Your task to perform on an android device: toggle translation in the chrome app Image 0: 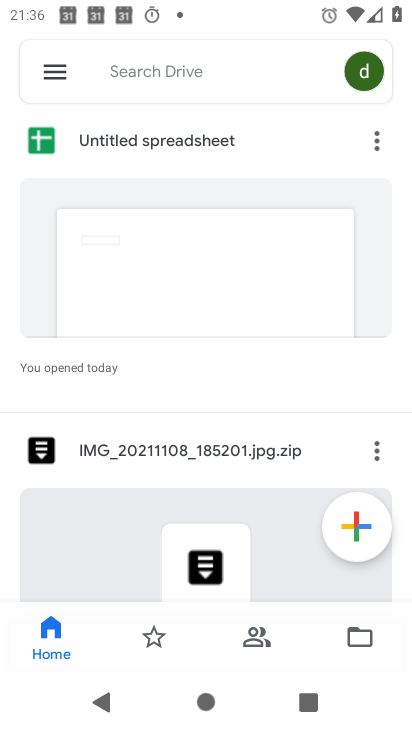
Step 0: press home button
Your task to perform on an android device: toggle translation in the chrome app Image 1: 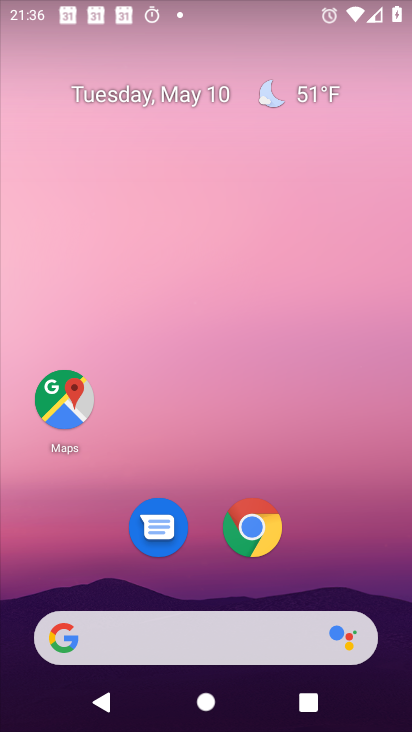
Step 1: click (255, 542)
Your task to perform on an android device: toggle translation in the chrome app Image 2: 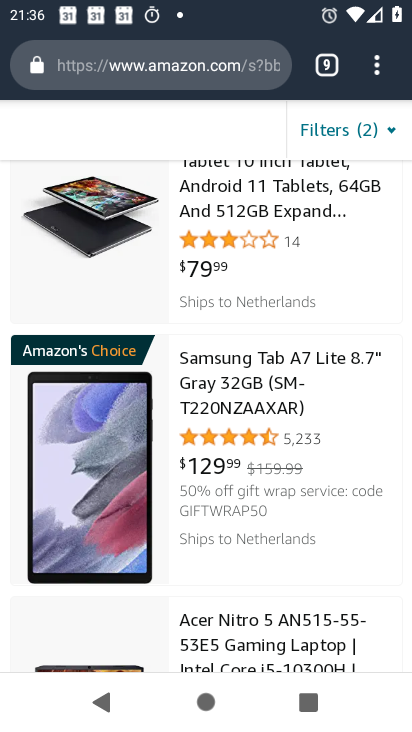
Step 2: click (365, 67)
Your task to perform on an android device: toggle translation in the chrome app Image 3: 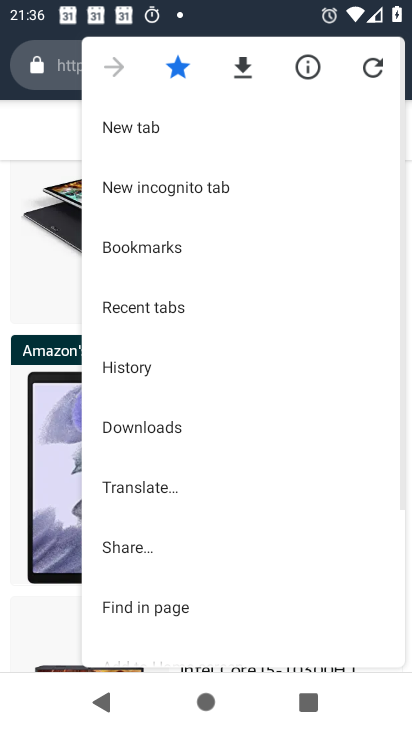
Step 3: drag from (220, 594) to (221, 122)
Your task to perform on an android device: toggle translation in the chrome app Image 4: 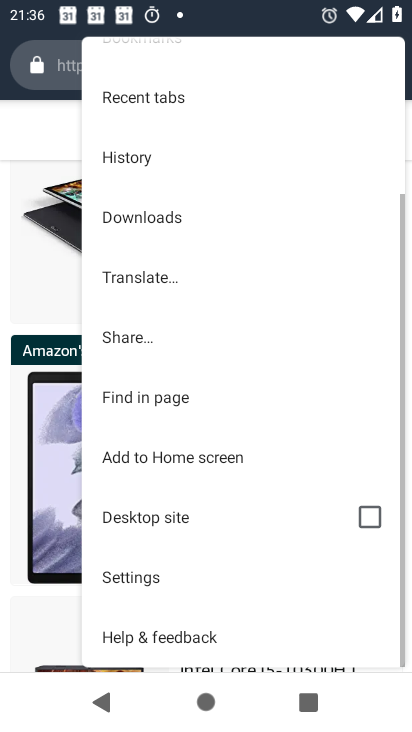
Step 4: click (138, 575)
Your task to perform on an android device: toggle translation in the chrome app Image 5: 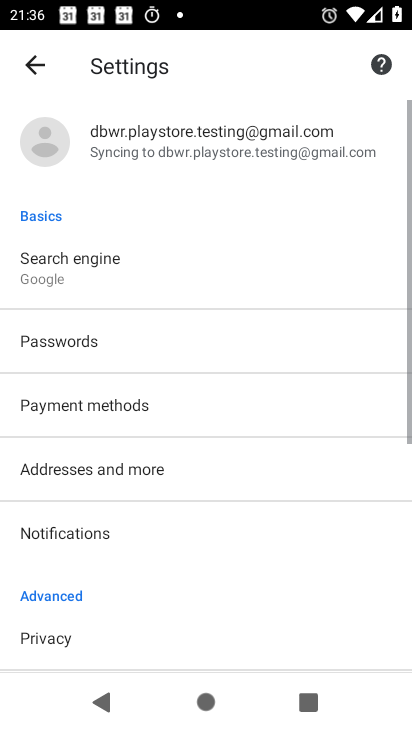
Step 5: drag from (156, 580) to (98, 74)
Your task to perform on an android device: toggle translation in the chrome app Image 6: 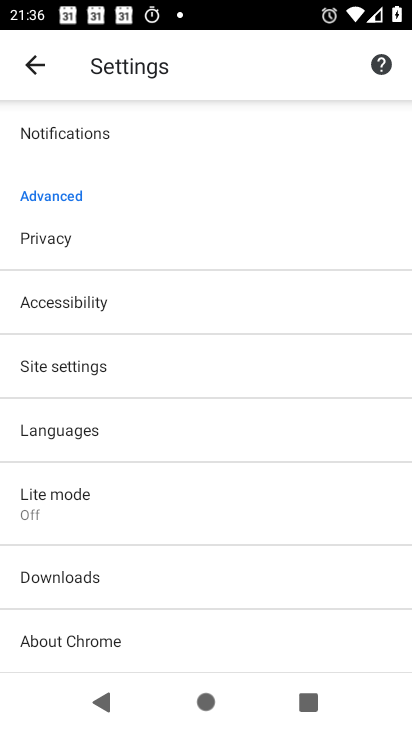
Step 6: click (80, 425)
Your task to perform on an android device: toggle translation in the chrome app Image 7: 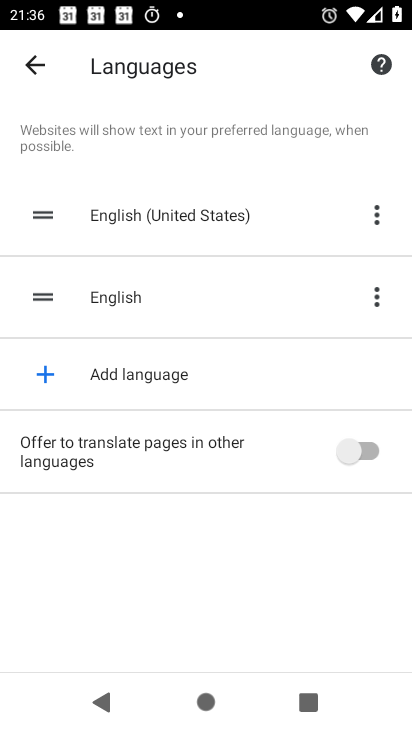
Step 7: click (369, 445)
Your task to perform on an android device: toggle translation in the chrome app Image 8: 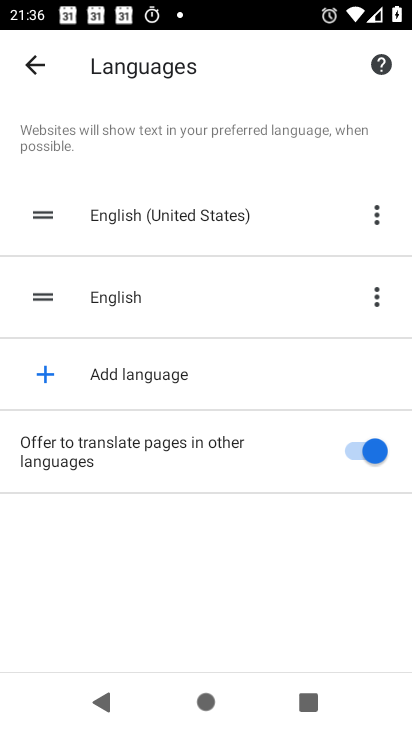
Step 8: task complete